Your task to perform on an android device: Empty the shopping cart on ebay. Search for "asus zenbook" on ebay, select the first entry, add it to the cart, then select checkout. Image 0: 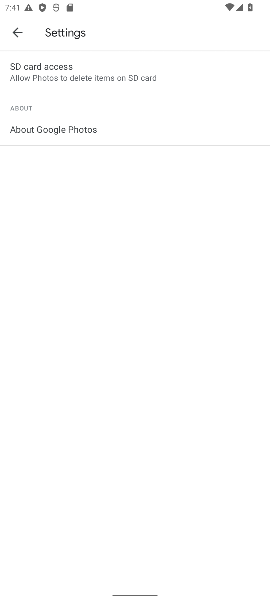
Step 0: press home button
Your task to perform on an android device: Empty the shopping cart on ebay. Search for "asus zenbook" on ebay, select the first entry, add it to the cart, then select checkout. Image 1: 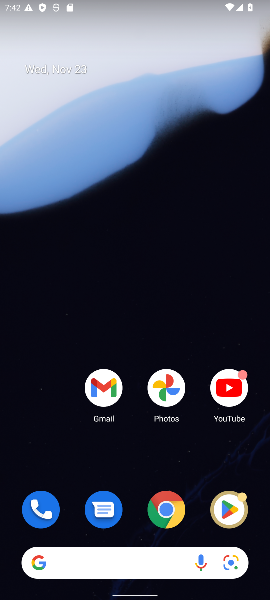
Step 1: click (155, 512)
Your task to perform on an android device: Empty the shopping cart on ebay. Search for "asus zenbook" on ebay, select the first entry, add it to the cart, then select checkout. Image 2: 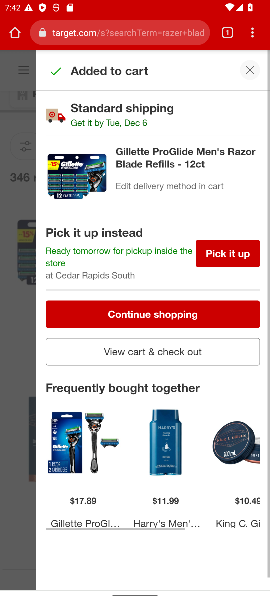
Step 2: click (255, 70)
Your task to perform on an android device: Empty the shopping cart on ebay. Search for "asus zenbook" on ebay, select the first entry, add it to the cart, then select checkout. Image 3: 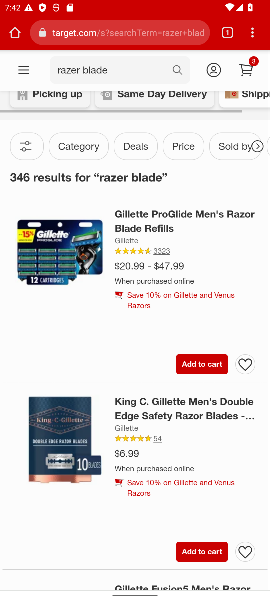
Step 3: click (106, 33)
Your task to perform on an android device: Empty the shopping cart on ebay. Search for "asus zenbook" on ebay, select the first entry, add it to the cart, then select checkout. Image 4: 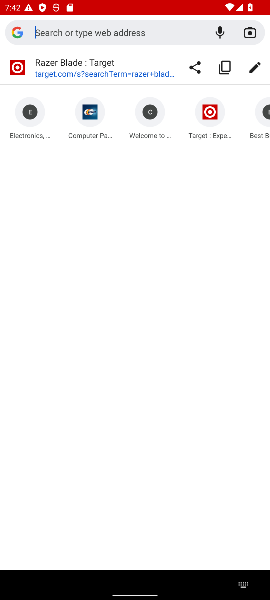
Step 4: type "ebay"
Your task to perform on an android device: Empty the shopping cart on ebay. Search for "asus zenbook" on ebay, select the first entry, add it to the cart, then select checkout. Image 5: 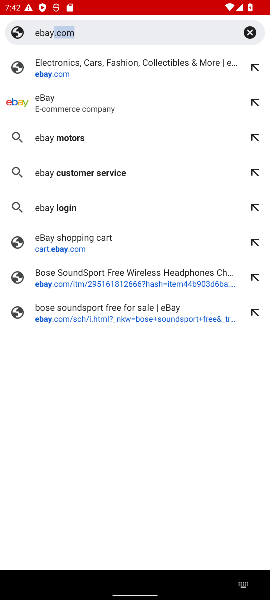
Step 5: click (76, 70)
Your task to perform on an android device: Empty the shopping cart on ebay. Search for "asus zenbook" on ebay, select the first entry, add it to the cart, then select checkout. Image 6: 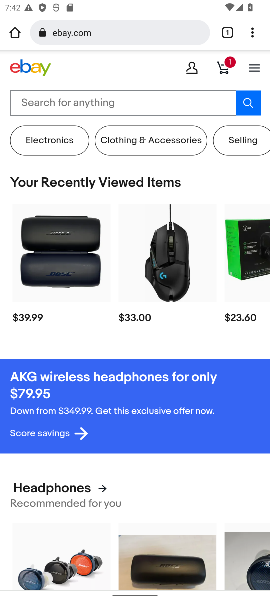
Step 6: click (222, 62)
Your task to perform on an android device: Empty the shopping cart on ebay. Search for "asus zenbook" on ebay, select the first entry, add it to the cart, then select checkout. Image 7: 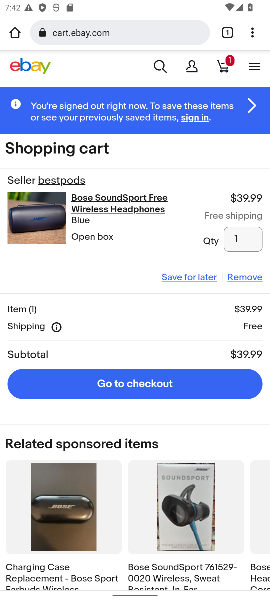
Step 7: click (237, 281)
Your task to perform on an android device: Empty the shopping cart on ebay. Search for "asus zenbook" on ebay, select the first entry, add it to the cart, then select checkout. Image 8: 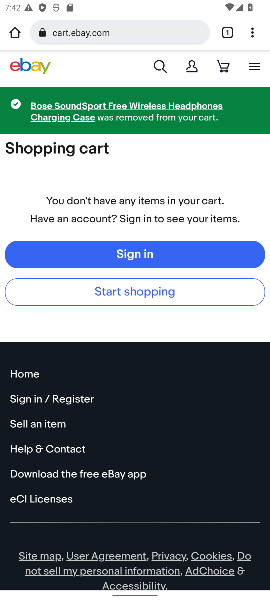
Step 8: click (159, 66)
Your task to perform on an android device: Empty the shopping cart on ebay. Search for "asus zenbook" on ebay, select the first entry, add it to the cart, then select checkout. Image 9: 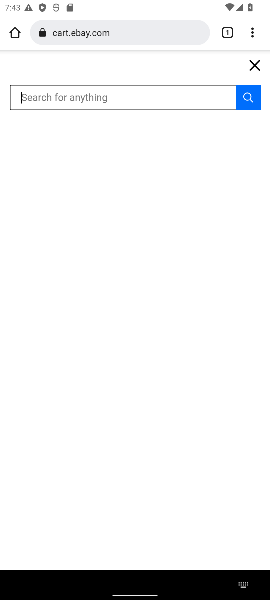
Step 9: type "asus zenbook"
Your task to perform on an android device: Empty the shopping cart on ebay. Search for "asus zenbook" on ebay, select the first entry, add it to the cart, then select checkout. Image 10: 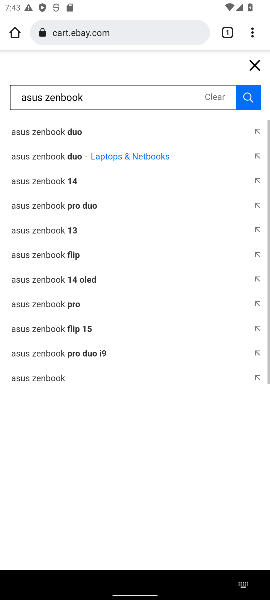
Step 10: press enter
Your task to perform on an android device: Empty the shopping cart on ebay. Search for "asus zenbook" on ebay, select the first entry, add it to the cart, then select checkout. Image 11: 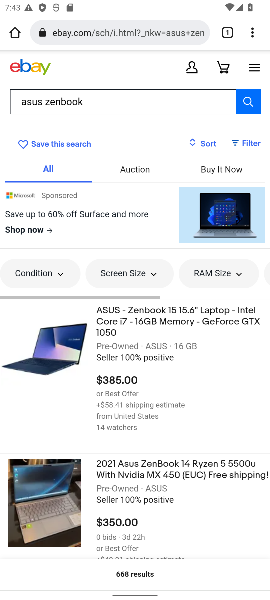
Step 11: click (135, 332)
Your task to perform on an android device: Empty the shopping cart on ebay. Search for "asus zenbook" on ebay, select the first entry, add it to the cart, then select checkout. Image 12: 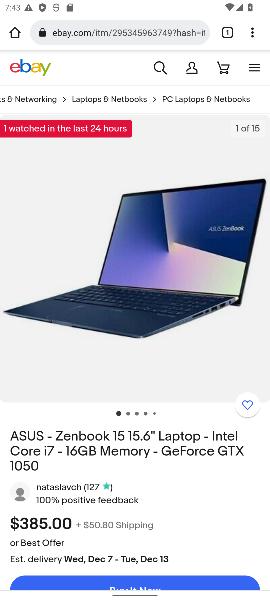
Step 12: drag from (182, 519) to (167, 325)
Your task to perform on an android device: Empty the shopping cart on ebay. Search for "asus zenbook" on ebay, select the first entry, add it to the cart, then select checkout. Image 13: 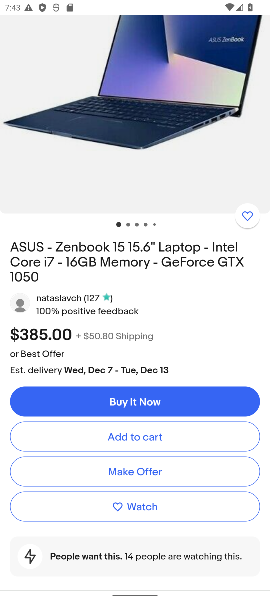
Step 13: click (159, 437)
Your task to perform on an android device: Empty the shopping cart on ebay. Search for "asus zenbook" on ebay, select the first entry, add it to the cart, then select checkout. Image 14: 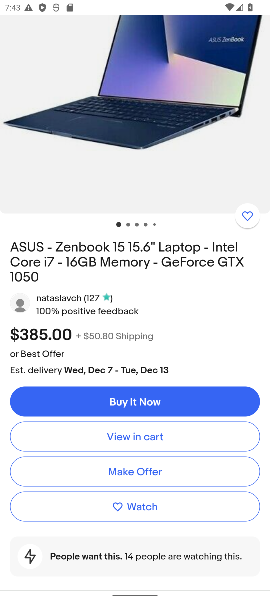
Step 14: click (131, 436)
Your task to perform on an android device: Empty the shopping cart on ebay. Search for "asus zenbook" on ebay, select the first entry, add it to the cart, then select checkout. Image 15: 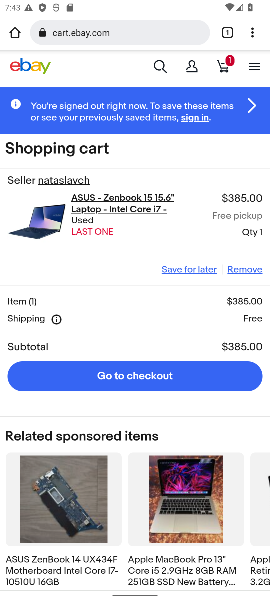
Step 15: click (218, 378)
Your task to perform on an android device: Empty the shopping cart on ebay. Search for "asus zenbook" on ebay, select the first entry, add it to the cart, then select checkout. Image 16: 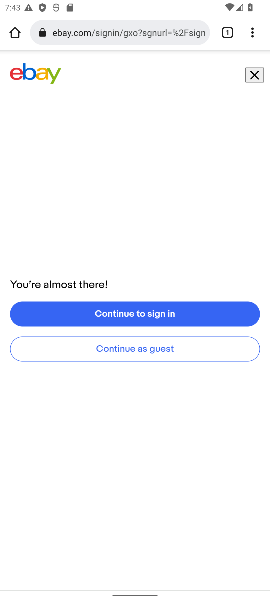
Step 16: task complete